Your task to perform on an android device: What's the weather today? Image 0: 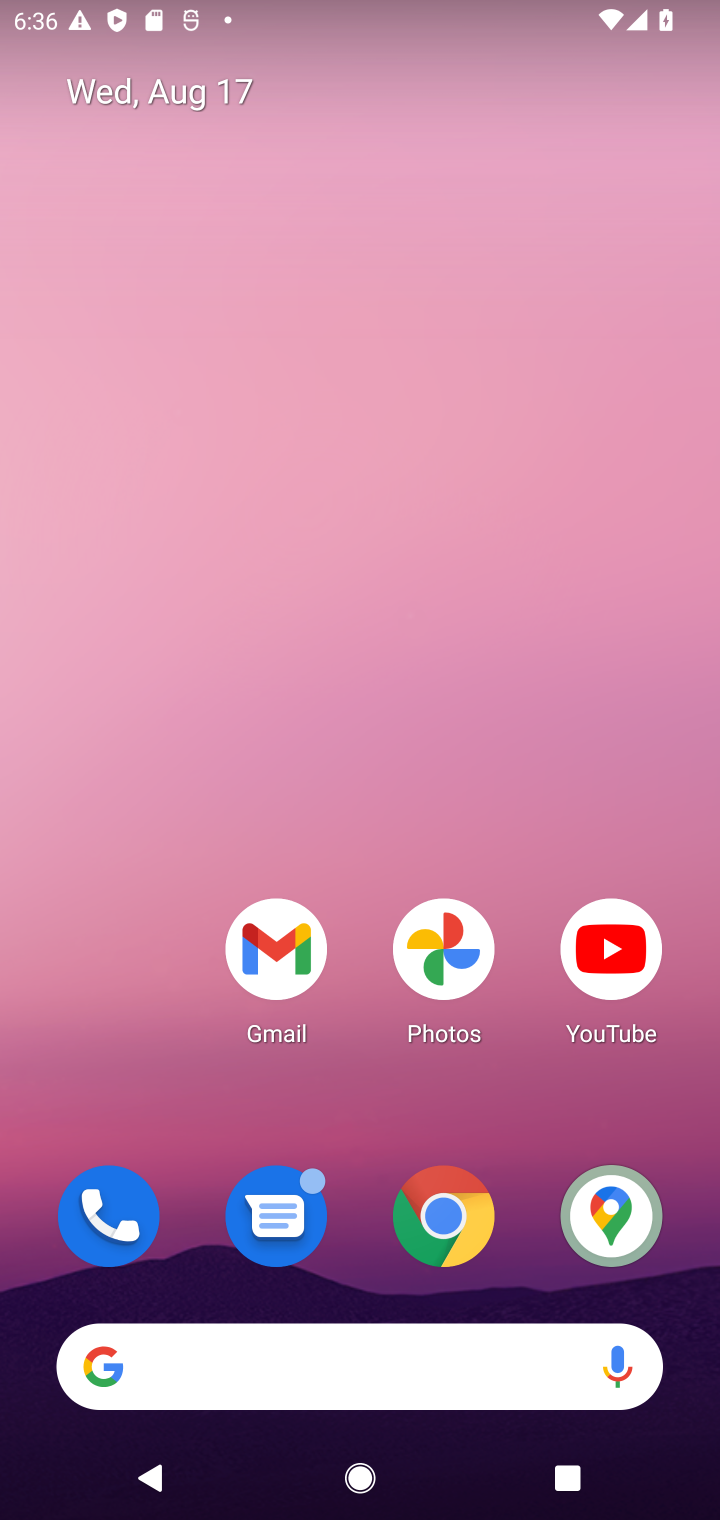
Step 0: drag from (510, 1028) to (513, 21)
Your task to perform on an android device: What's the weather today? Image 1: 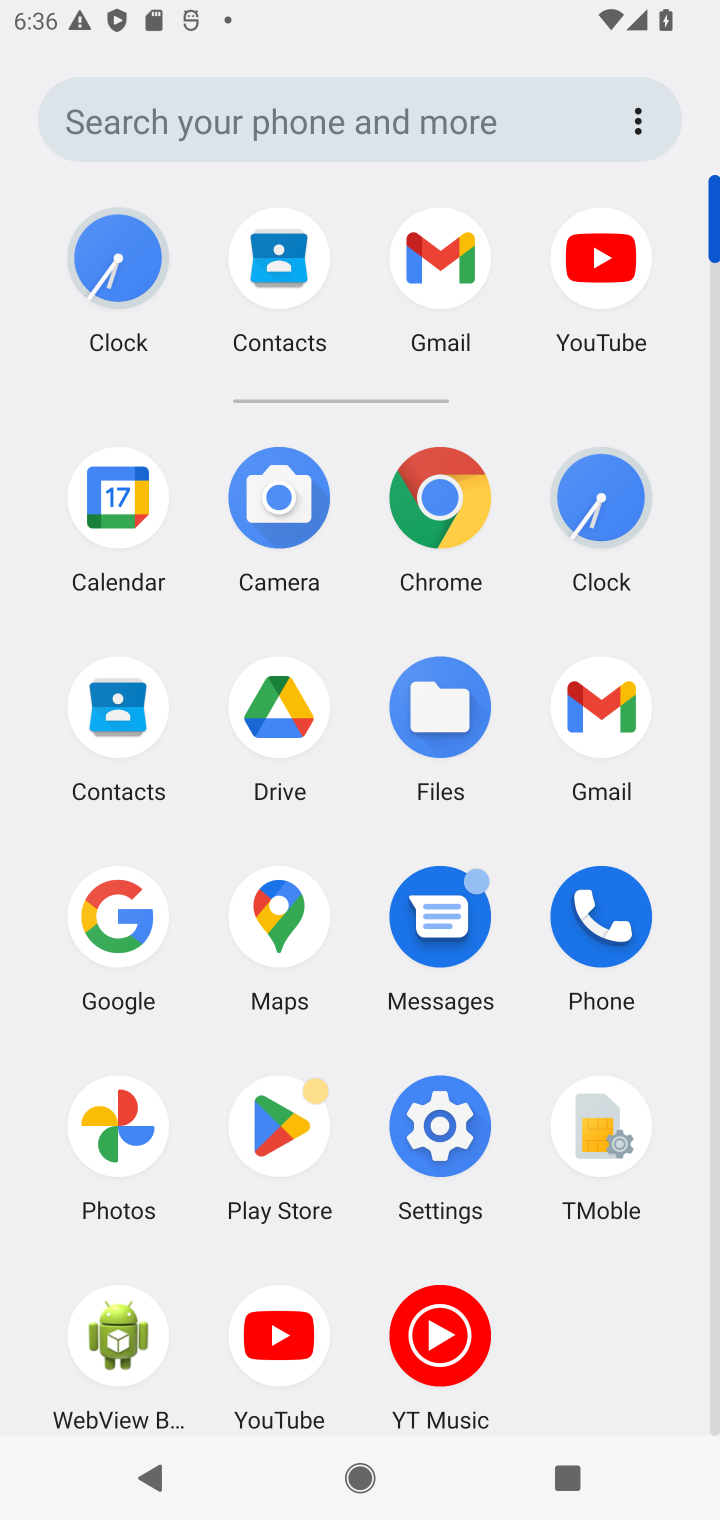
Step 1: click (448, 505)
Your task to perform on an android device: What's the weather today? Image 2: 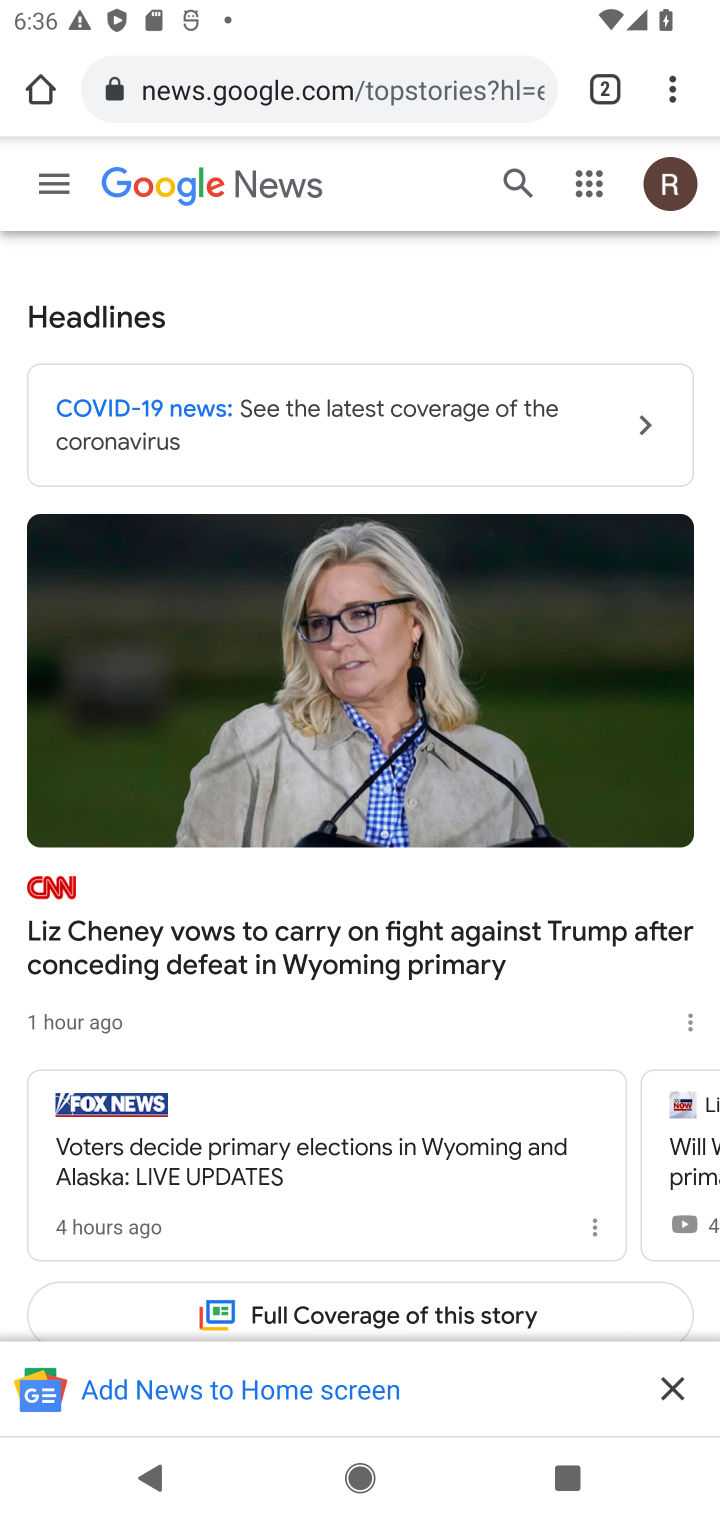
Step 2: click (384, 84)
Your task to perform on an android device: What's the weather today? Image 3: 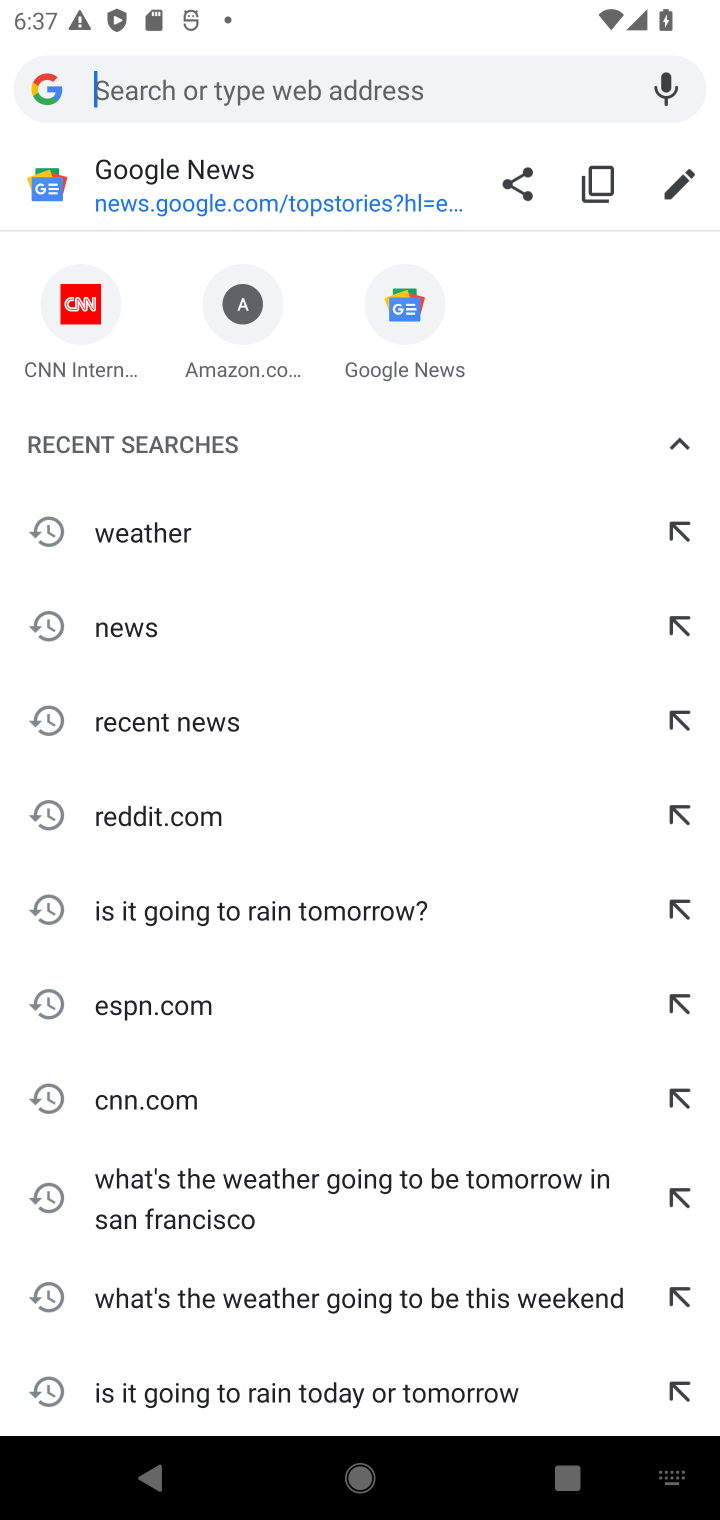
Step 3: type "What's the weather today?"
Your task to perform on an android device: What's the weather today? Image 4: 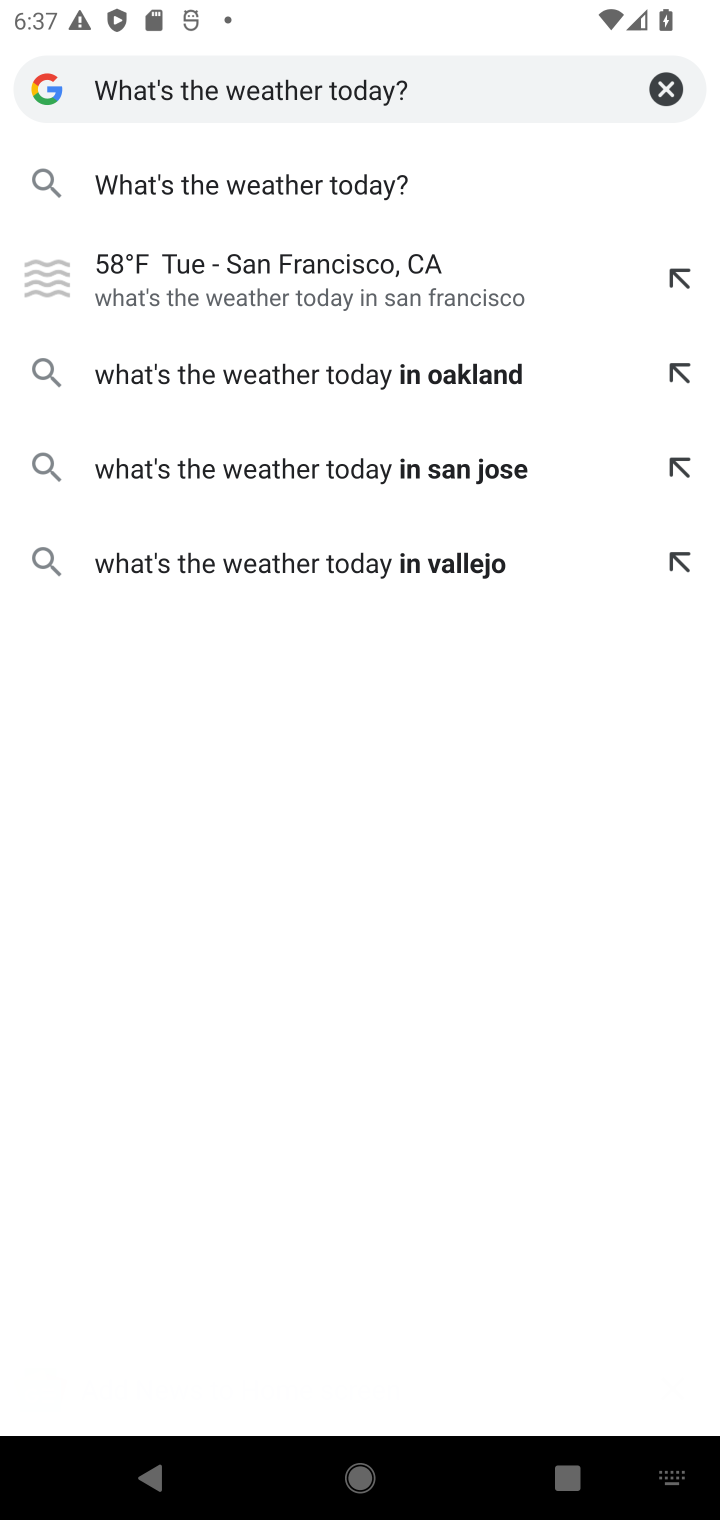
Step 4: click (307, 178)
Your task to perform on an android device: What's the weather today? Image 5: 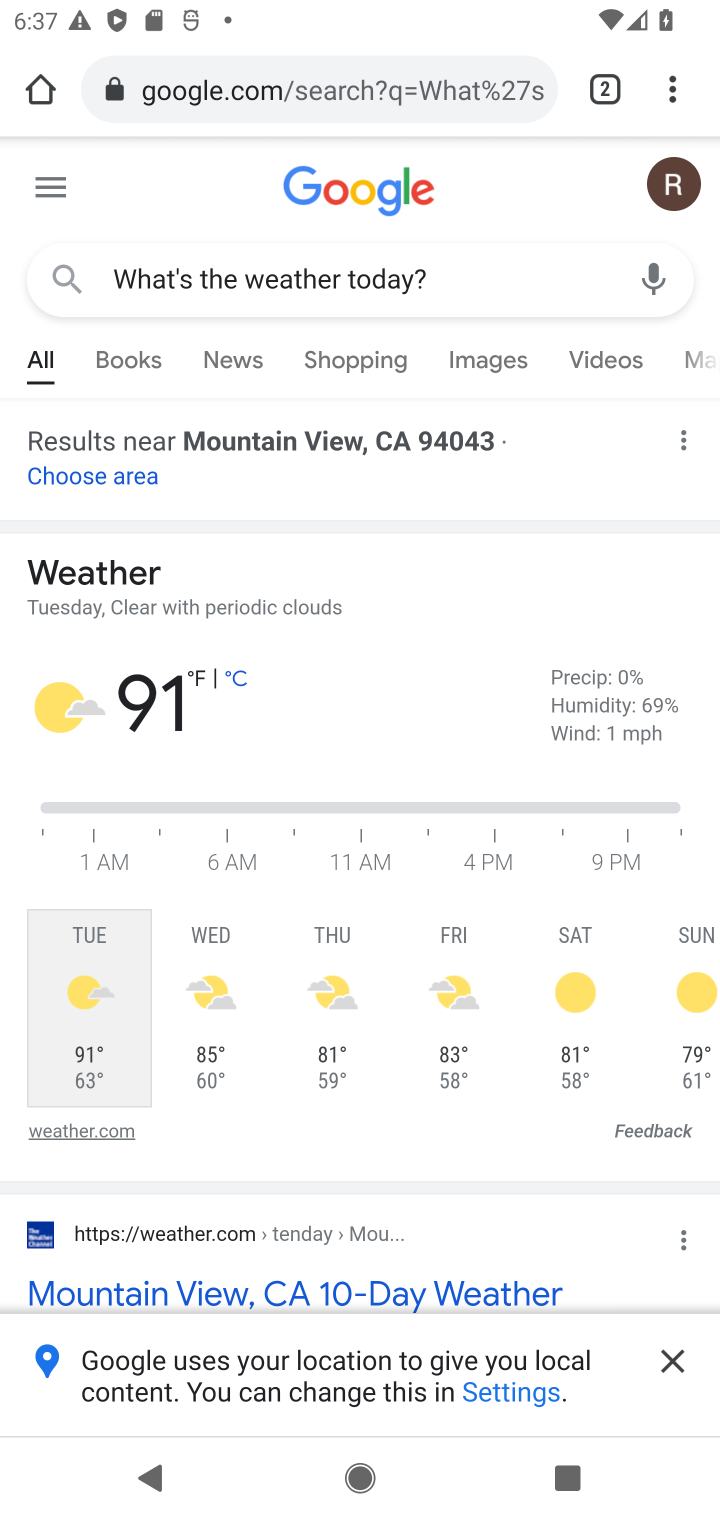
Step 5: task complete